Your task to perform on an android device: turn off picture-in-picture Image 0: 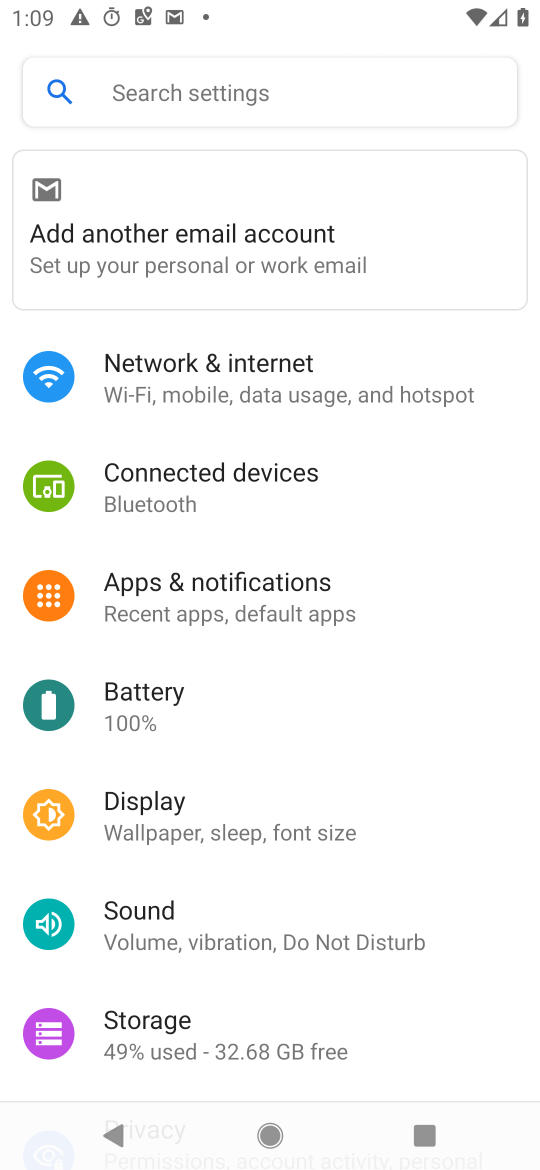
Step 0: drag from (268, 842) to (216, 336)
Your task to perform on an android device: turn off picture-in-picture Image 1: 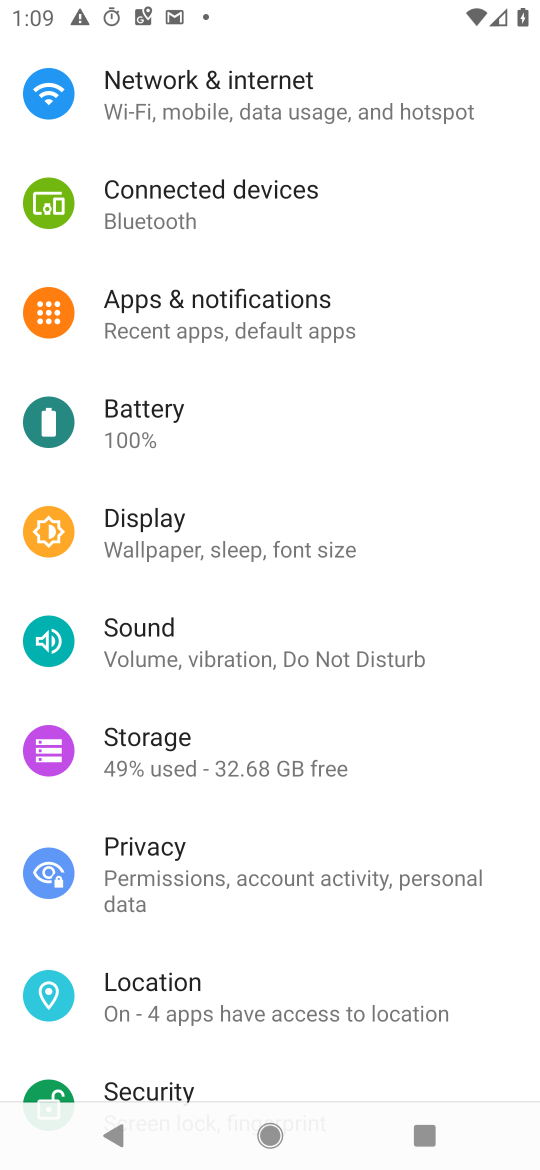
Step 1: drag from (232, 281) to (342, 998)
Your task to perform on an android device: turn off picture-in-picture Image 2: 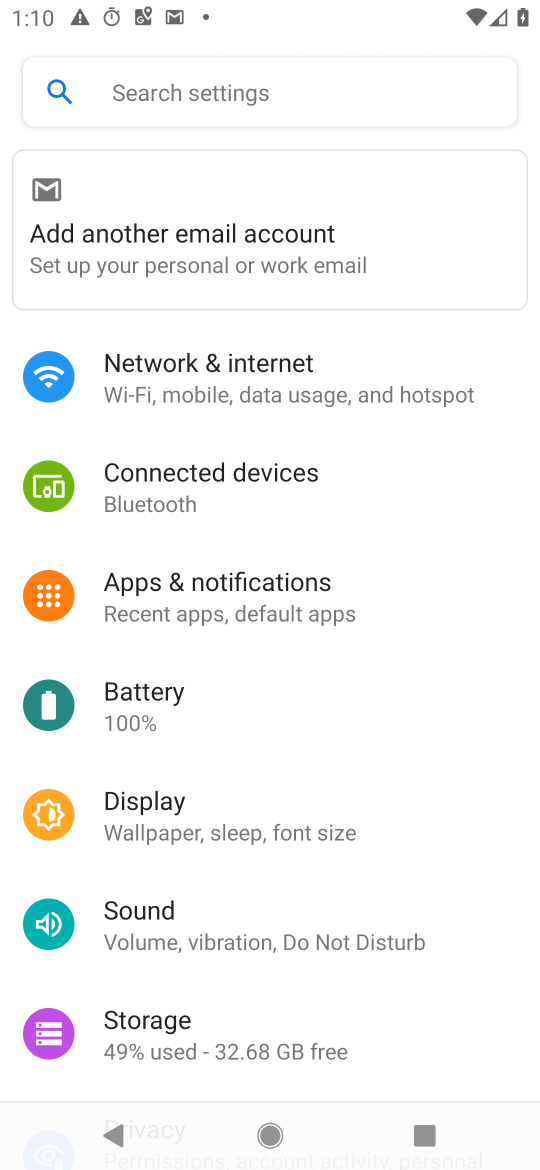
Step 2: click (323, 532)
Your task to perform on an android device: turn off picture-in-picture Image 3: 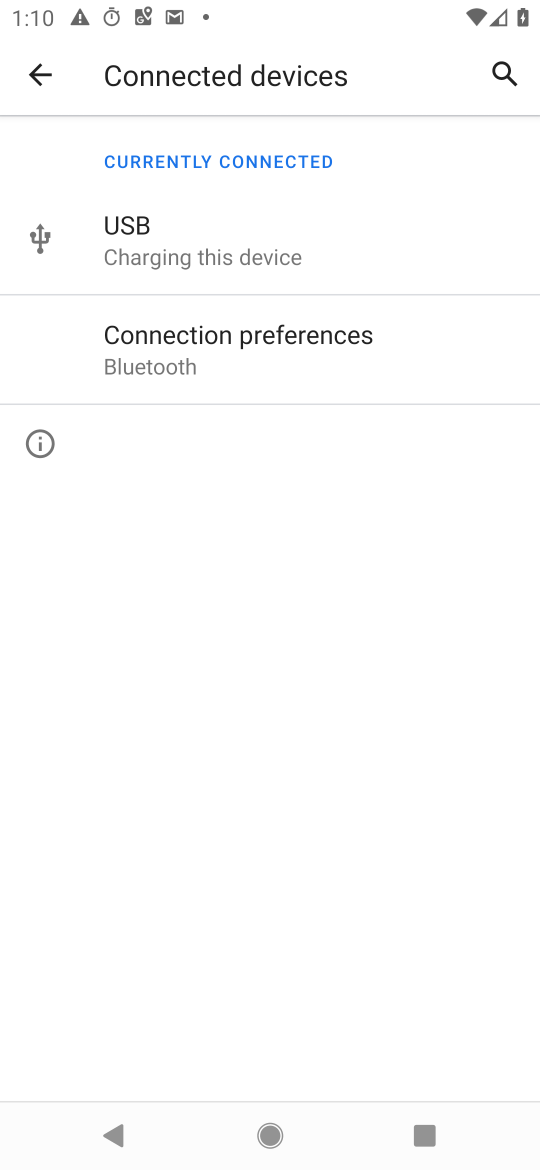
Step 3: click (43, 81)
Your task to perform on an android device: turn off picture-in-picture Image 4: 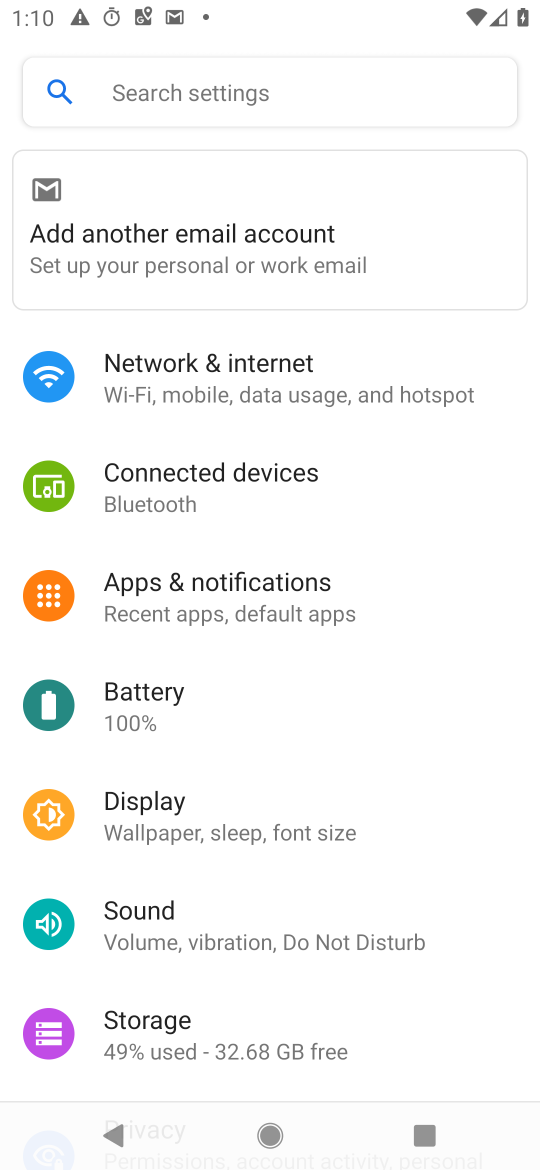
Step 4: click (182, 608)
Your task to perform on an android device: turn off picture-in-picture Image 5: 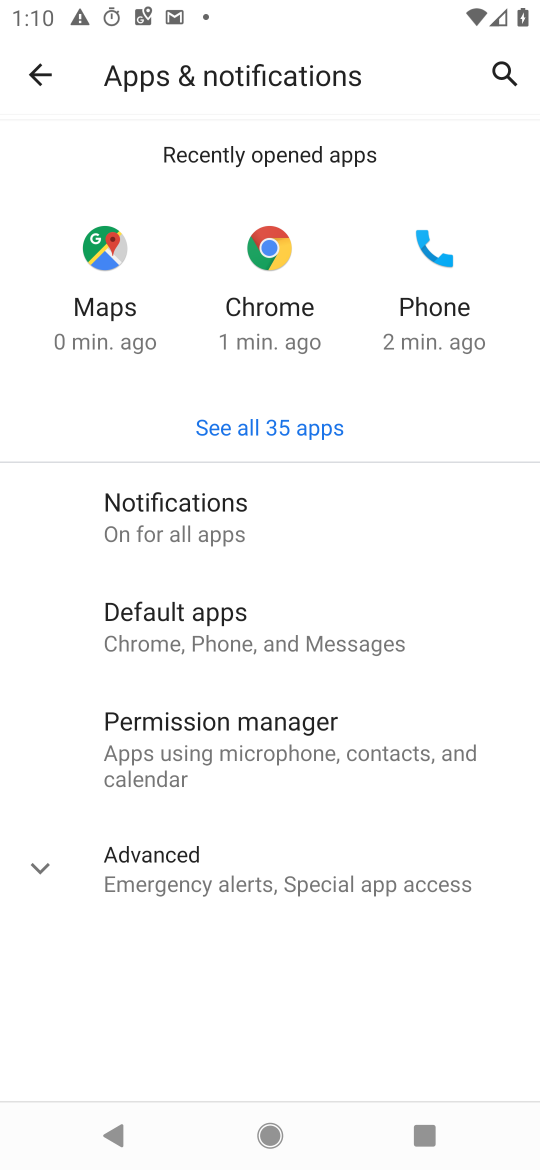
Step 5: click (217, 887)
Your task to perform on an android device: turn off picture-in-picture Image 6: 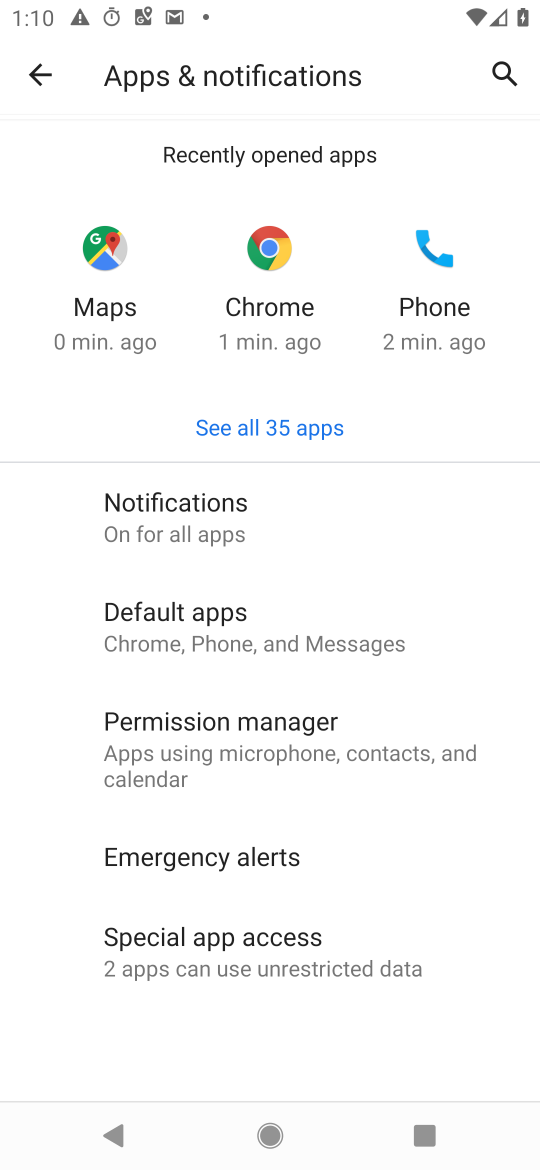
Step 6: drag from (349, 990) to (293, 721)
Your task to perform on an android device: turn off picture-in-picture Image 7: 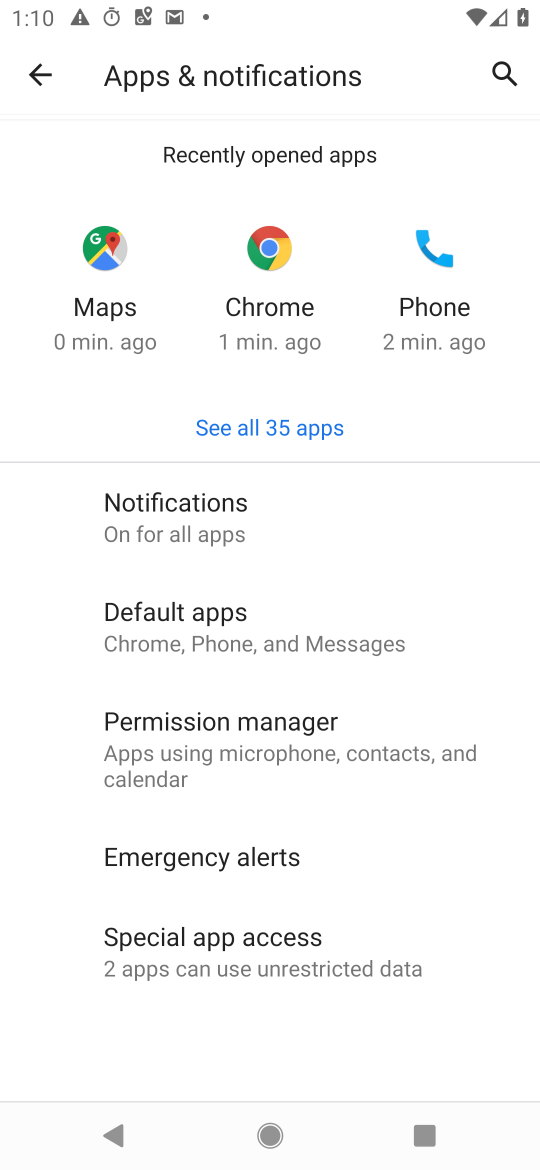
Step 7: drag from (289, 939) to (272, 363)
Your task to perform on an android device: turn off picture-in-picture Image 8: 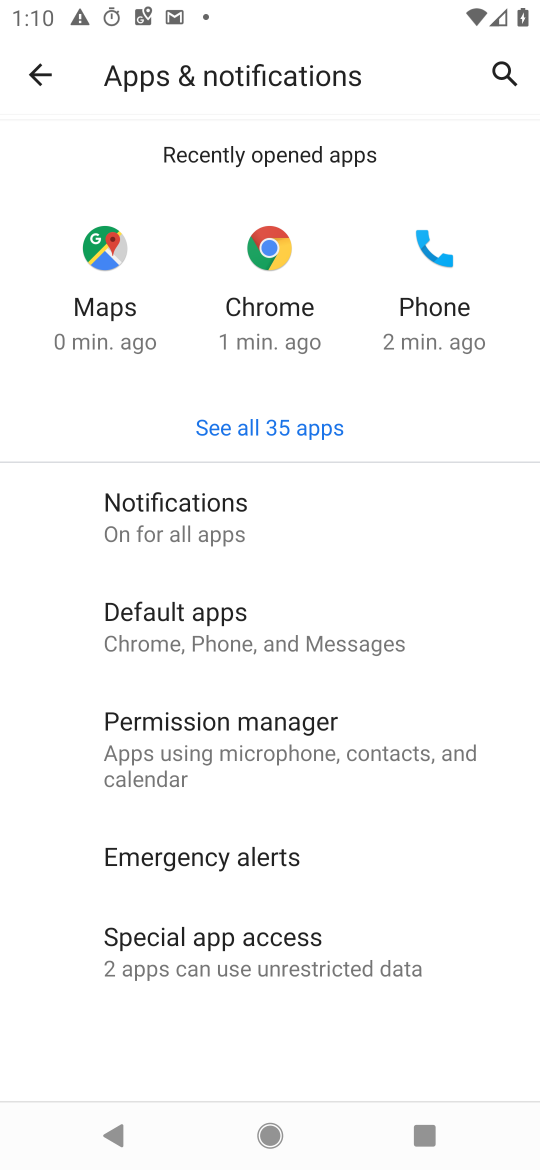
Step 8: drag from (338, 866) to (264, 218)
Your task to perform on an android device: turn off picture-in-picture Image 9: 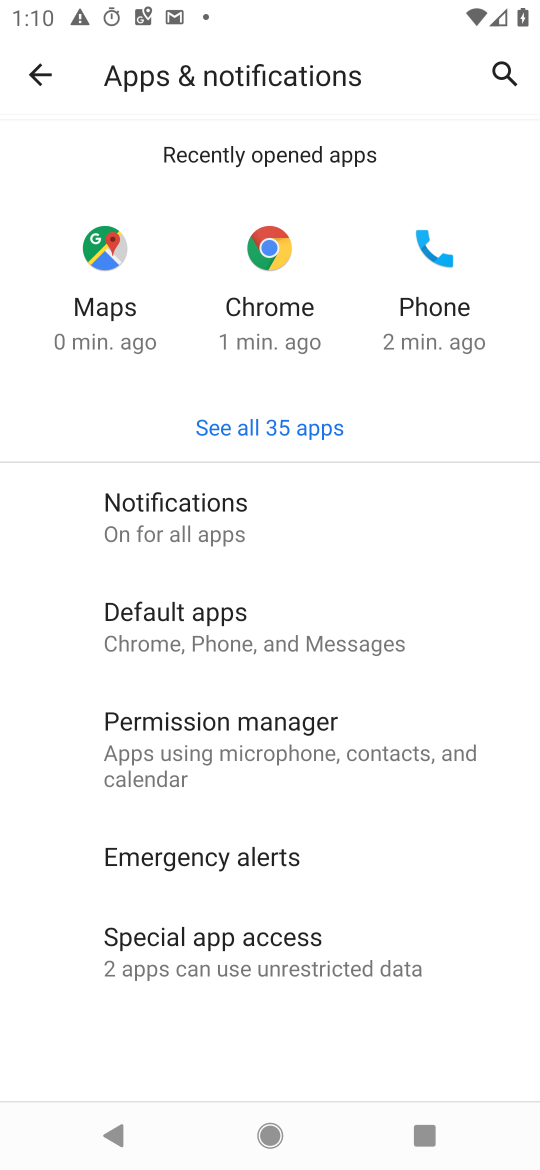
Step 9: drag from (295, 796) to (287, 321)
Your task to perform on an android device: turn off picture-in-picture Image 10: 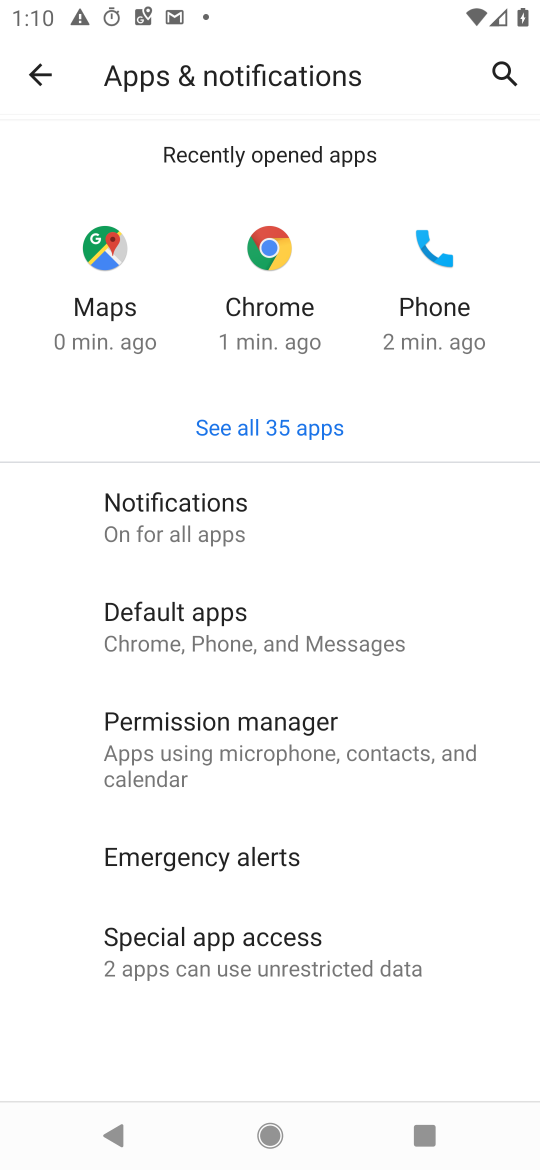
Step 10: drag from (283, 899) to (225, 424)
Your task to perform on an android device: turn off picture-in-picture Image 11: 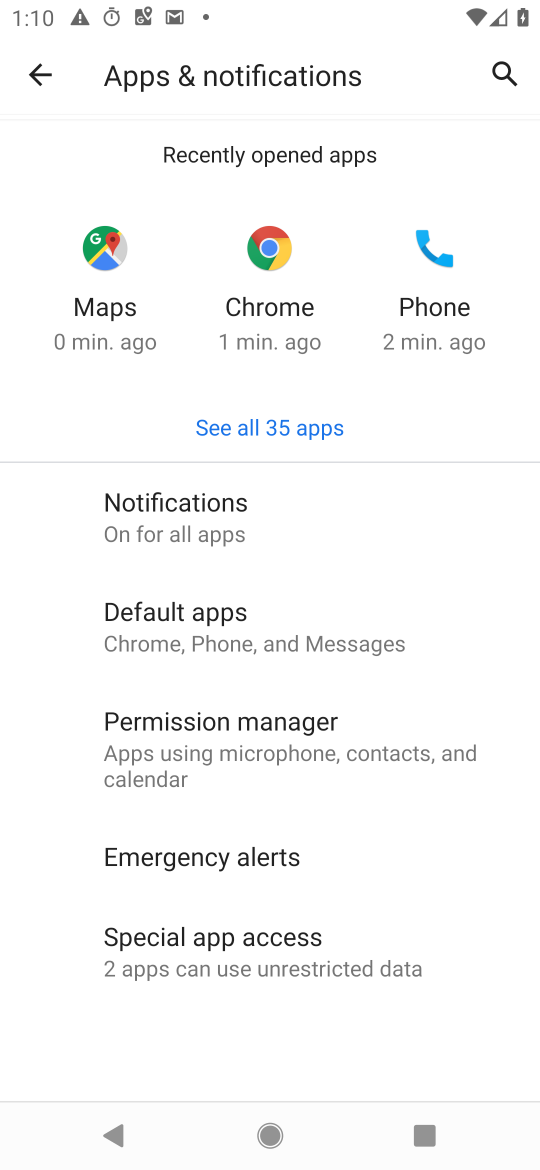
Step 11: click (271, 950)
Your task to perform on an android device: turn off picture-in-picture Image 12: 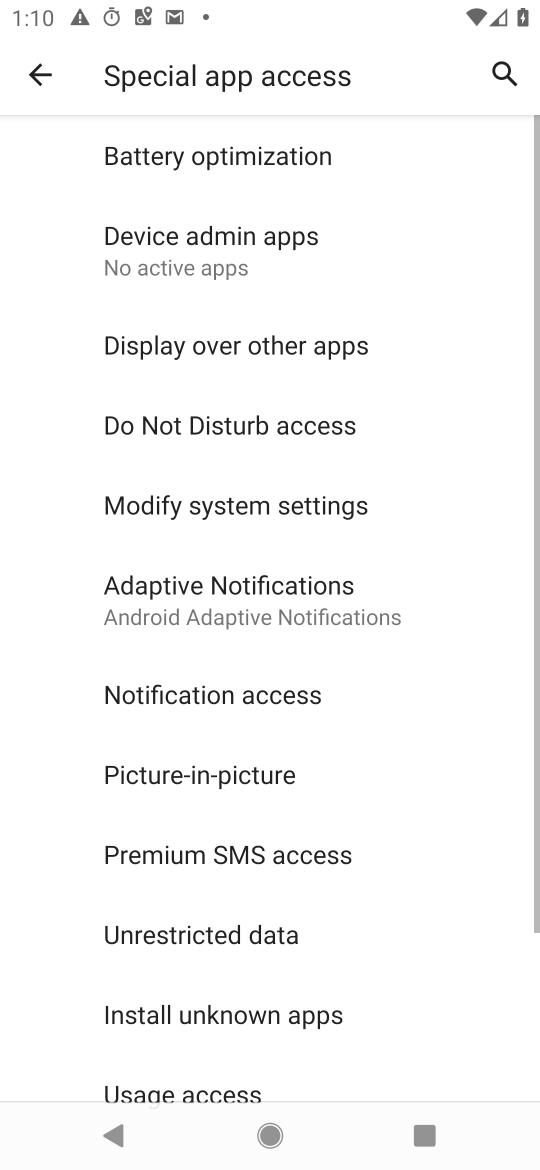
Step 12: drag from (274, 950) to (309, 278)
Your task to perform on an android device: turn off picture-in-picture Image 13: 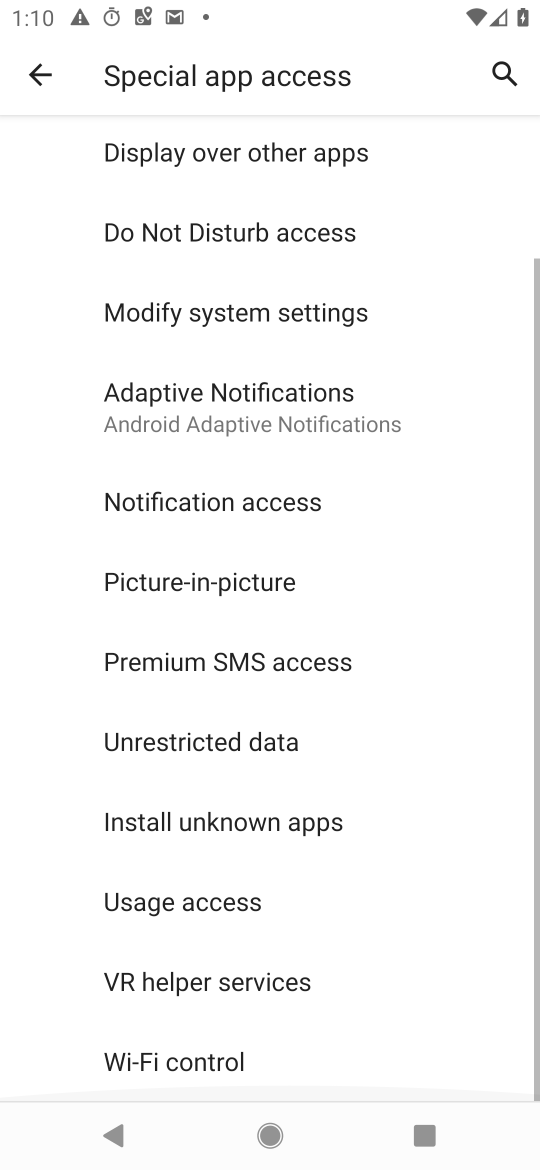
Step 13: drag from (290, 960) to (303, 274)
Your task to perform on an android device: turn off picture-in-picture Image 14: 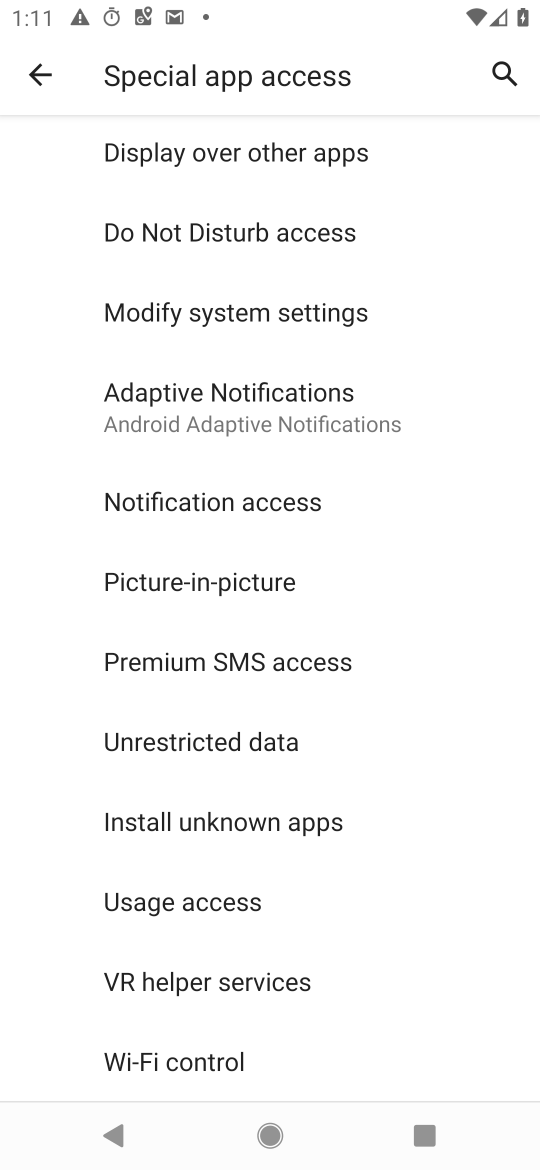
Step 14: drag from (240, 1004) to (266, 142)
Your task to perform on an android device: turn off picture-in-picture Image 15: 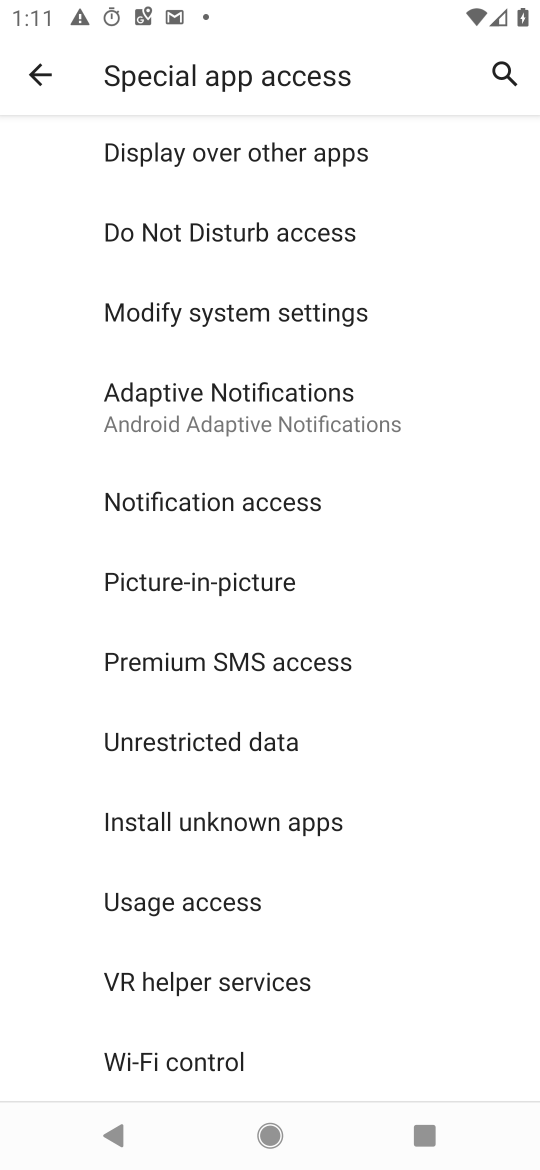
Step 15: click (192, 567)
Your task to perform on an android device: turn off picture-in-picture Image 16: 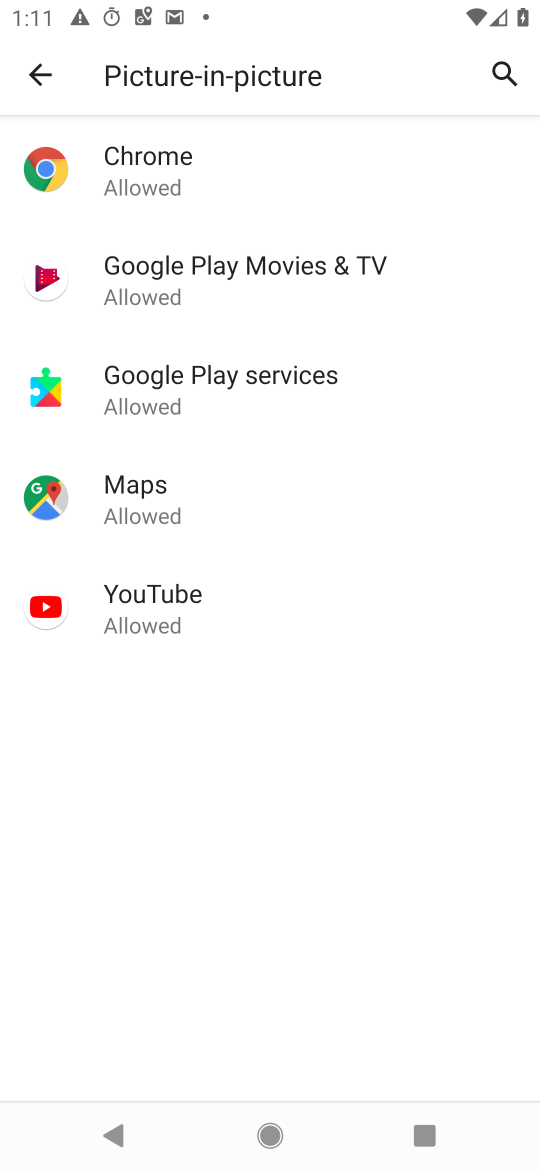
Step 16: task complete